Your task to perform on an android device: see creations saved in the google photos Image 0: 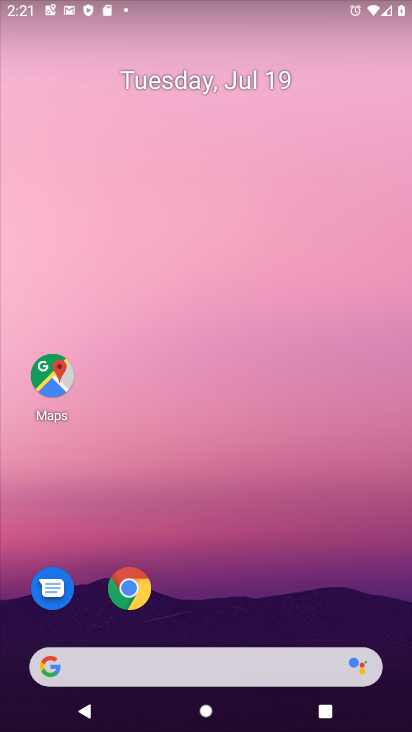
Step 0: drag from (305, 585) to (227, 6)
Your task to perform on an android device: see creations saved in the google photos Image 1: 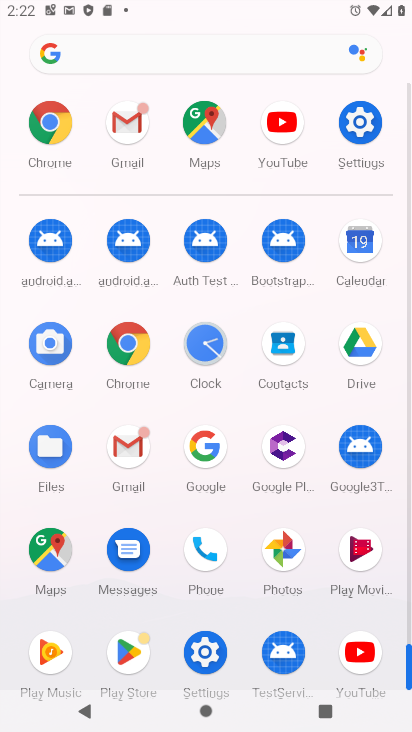
Step 1: click (275, 545)
Your task to perform on an android device: see creations saved in the google photos Image 2: 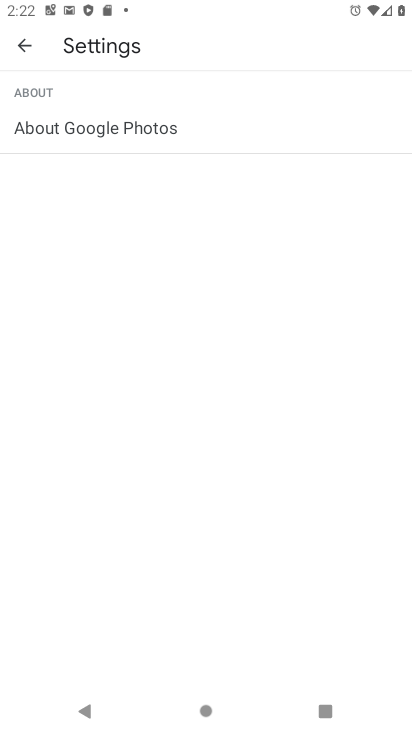
Step 2: task complete